Your task to perform on an android device: Open wifi settings Image 0: 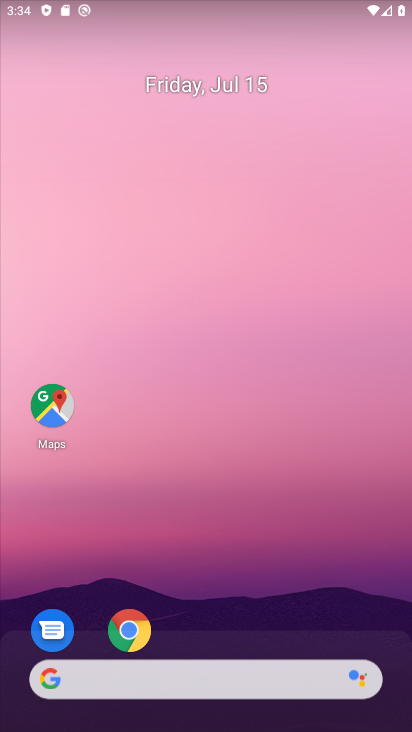
Step 0: drag from (227, 640) to (218, 24)
Your task to perform on an android device: Open wifi settings Image 1: 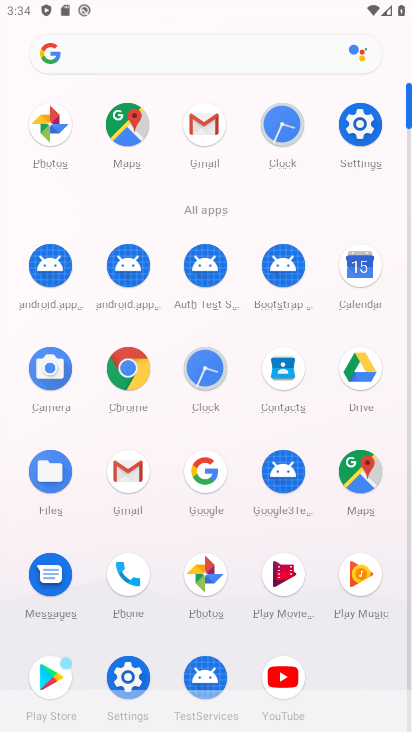
Step 1: click (139, 668)
Your task to perform on an android device: Open wifi settings Image 2: 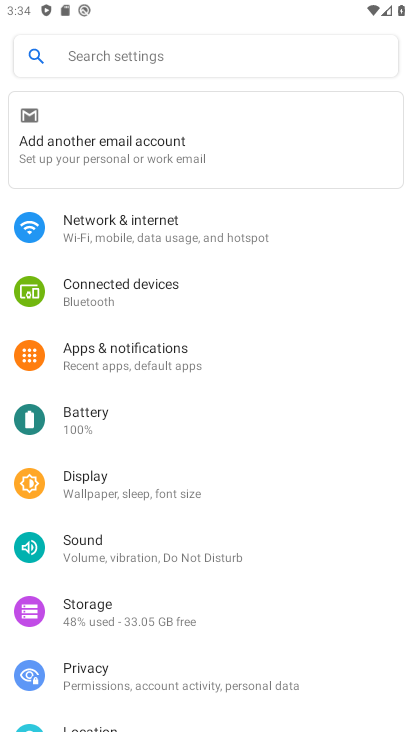
Step 2: click (149, 221)
Your task to perform on an android device: Open wifi settings Image 3: 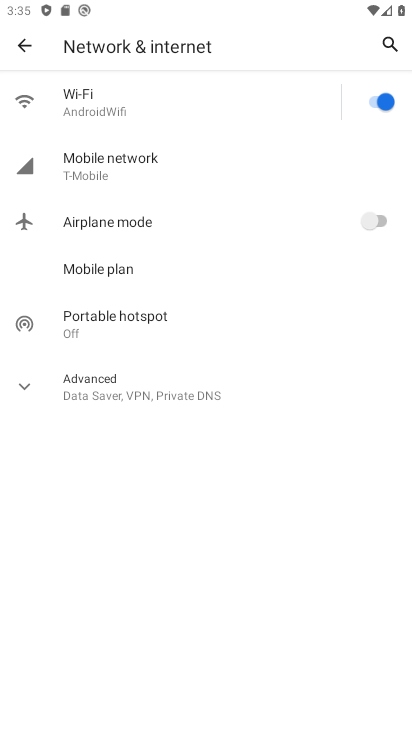
Step 3: click (75, 96)
Your task to perform on an android device: Open wifi settings Image 4: 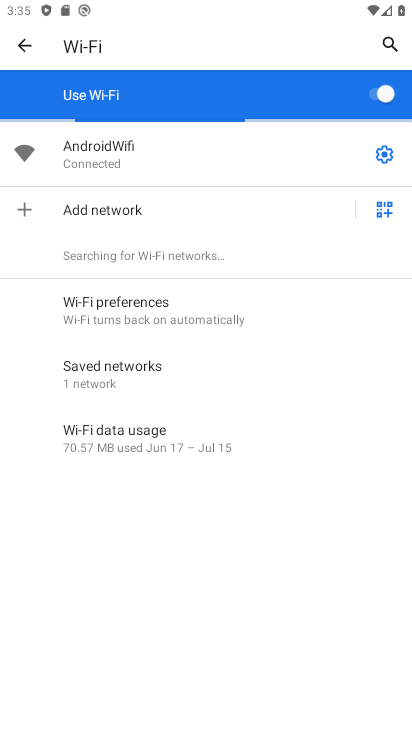
Step 4: task complete